Your task to perform on an android device: check storage Image 0: 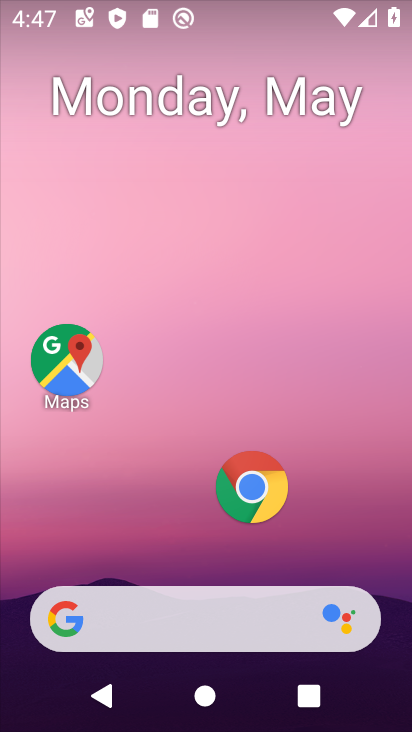
Step 0: drag from (156, 724) to (218, 33)
Your task to perform on an android device: check storage Image 1: 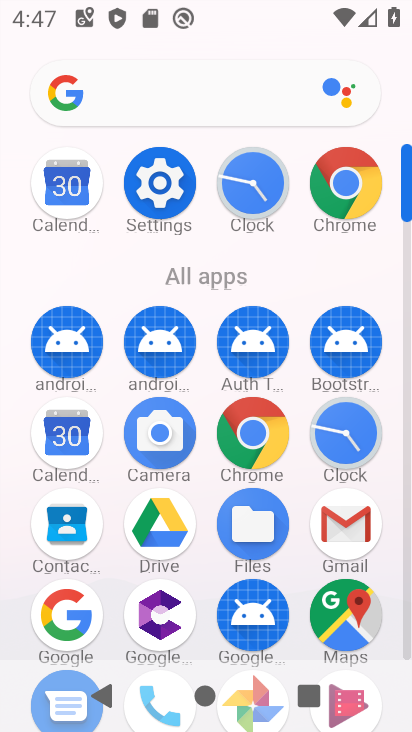
Step 1: click (164, 189)
Your task to perform on an android device: check storage Image 2: 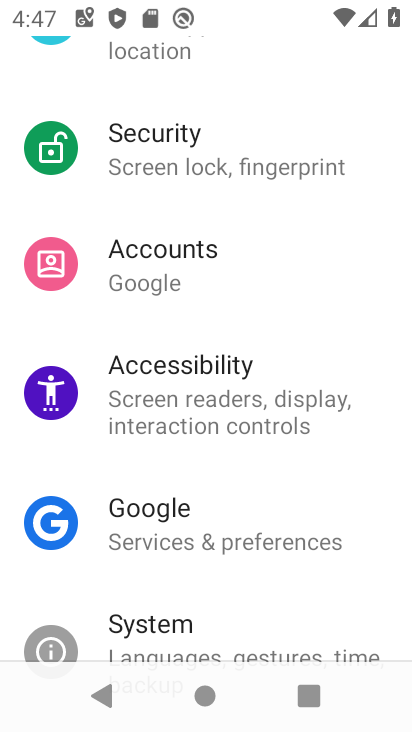
Step 2: drag from (277, 111) to (280, 642)
Your task to perform on an android device: check storage Image 3: 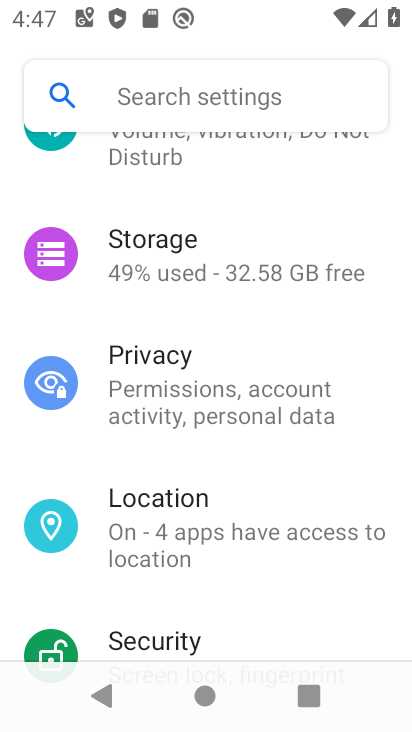
Step 3: click (240, 262)
Your task to perform on an android device: check storage Image 4: 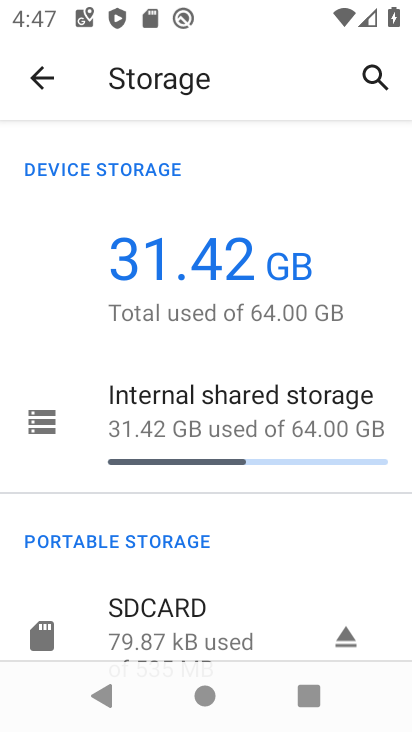
Step 4: task complete